Your task to perform on an android device: Show me popular games on the Play Store Image 0: 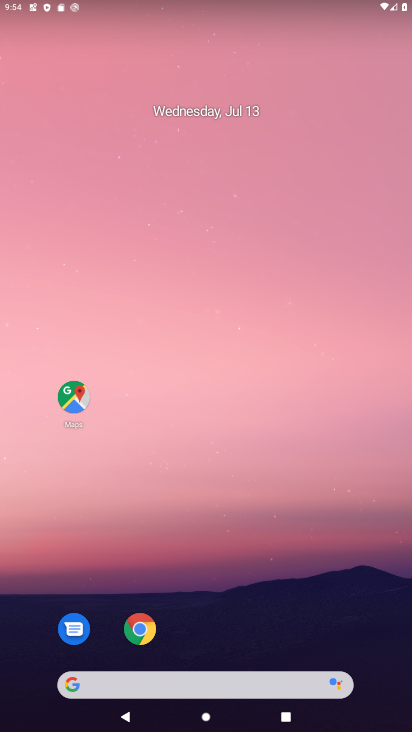
Step 0: drag from (212, 653) to (212, 23)
Your task to perform on an android device: Show me popular games on the Play Store Image 1: 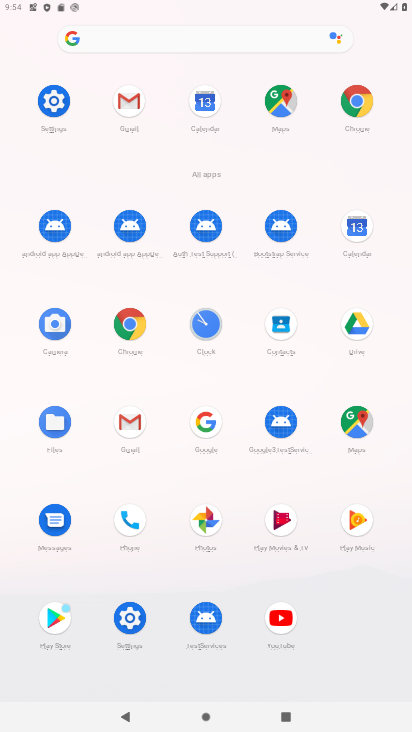
Step 1: click (51, 613)
Your task to perform on an android device: Show me popular games on the Play Store Image 2: 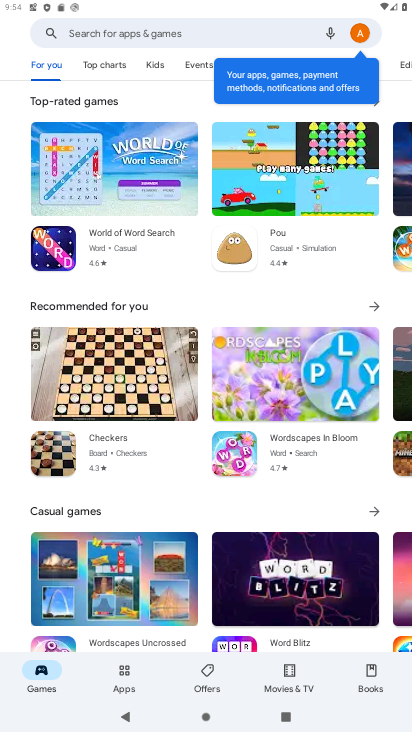
Step 2: task complete